Your task to perform on an android device: View the shopping cart on amazon.com. Add "razer blade" to the cart on amazon.com, then select checkout. Image 0: 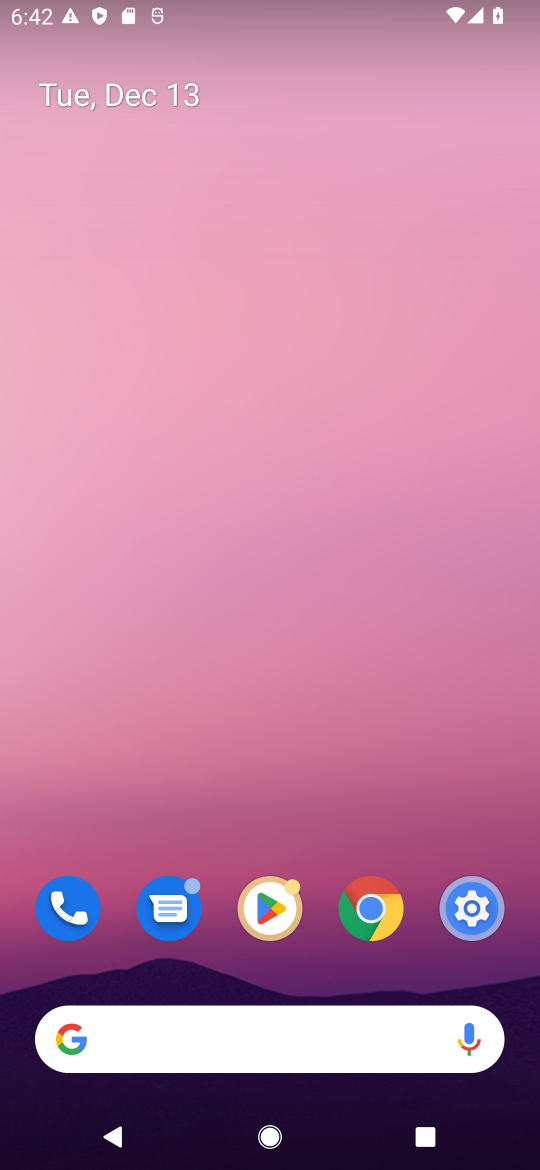
Step 0: press home button
Your task to perform on an android device: View the shopping cart on amazon.com. Add "razer blade" to the cart on amazon.com, then select checkout. Image 1: 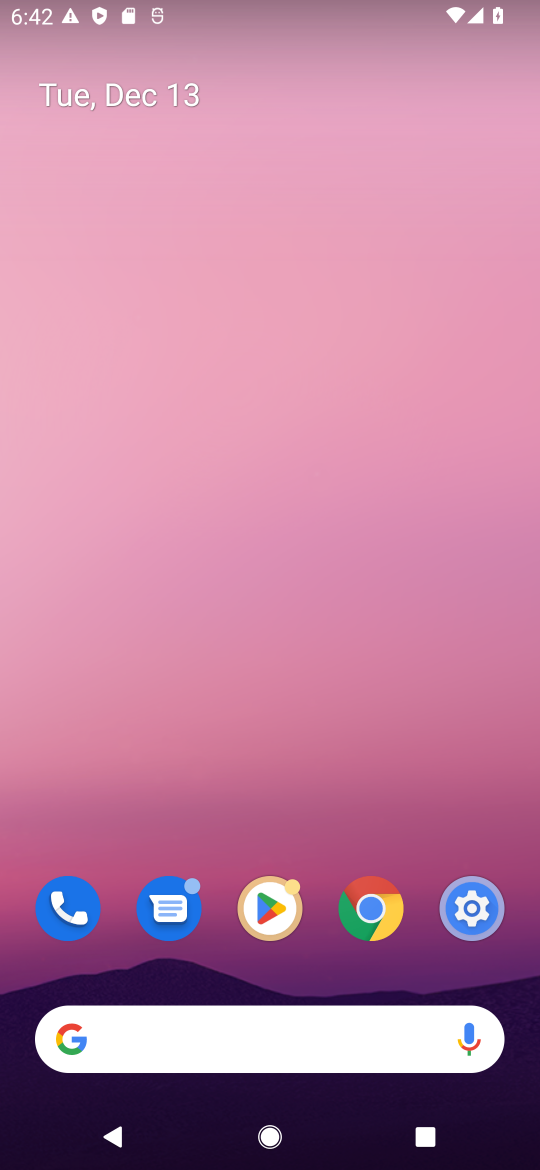
Step 1: click (124, 1052)
Your task to perform on an android device: View the shopping cart on amazon.com. Add "razer blade" to the cart on amazon.com, then select checkout. Image 2: 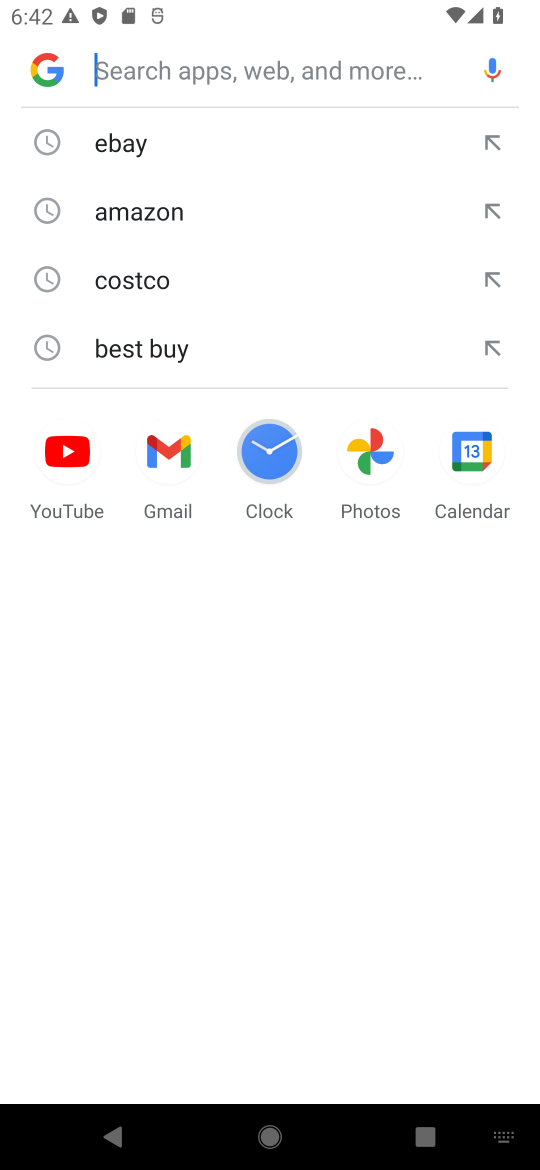
Step 2: press enter
Your task to perform on an android device: View the shopping cart on amazon.com. Add "razer blade" to the cart on amazon.com, then select checkout. Image 3: 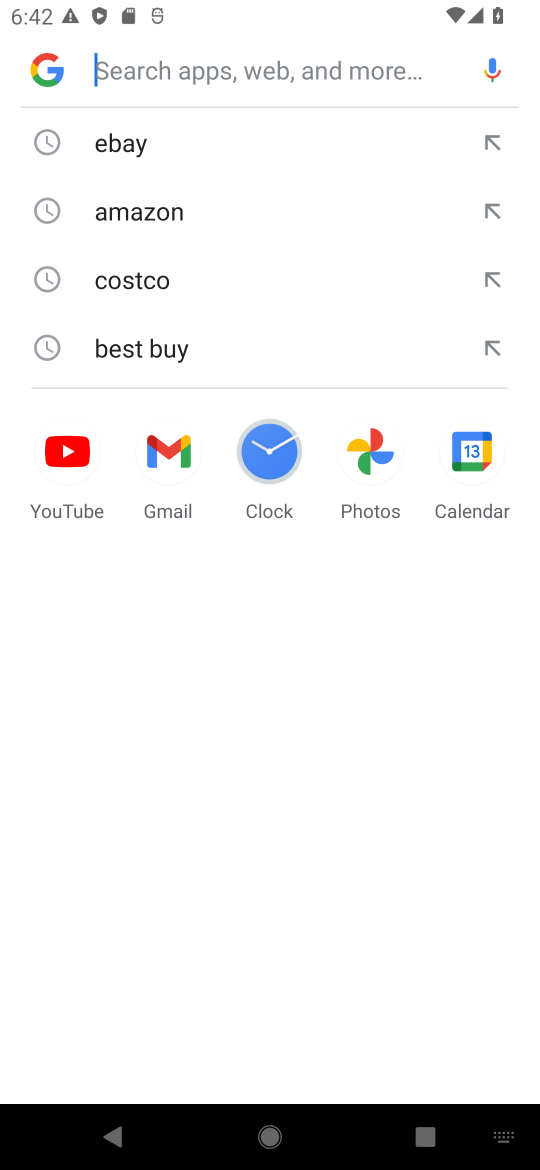
Step 3: type "amazon.com"
Your task to perform on an android device: View the shopping cart on amazon.com. Add "razer blade" to the cart on amazon.com, then select checkout. Image 4: 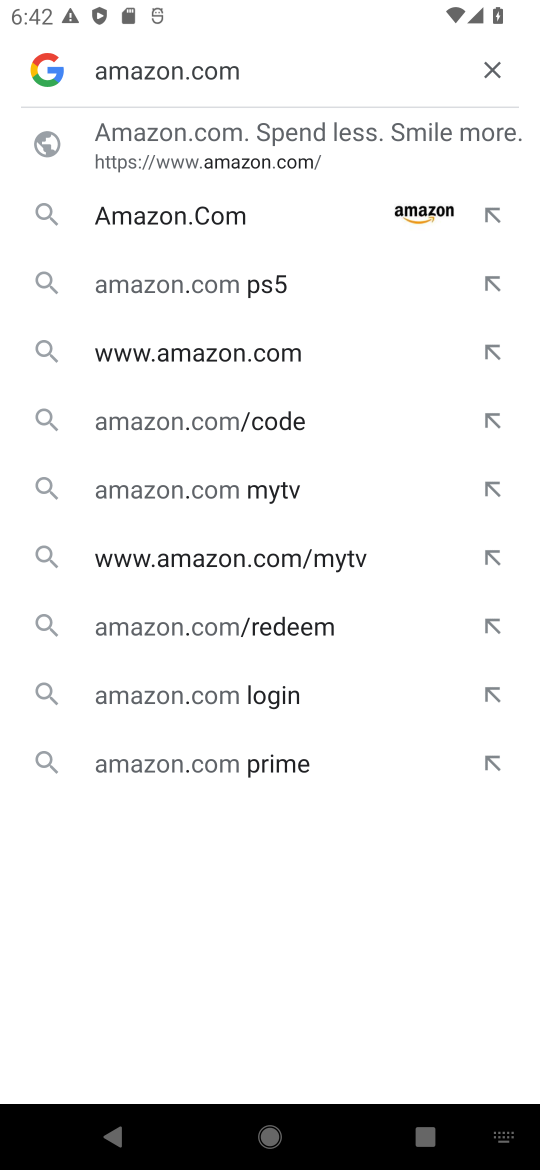
Step 4: press enter
Your task to perform on an android device: View the shopping cart on amazon.com. Add "razer blade" to the cart on amazon.com, then select checkout. Image 5: 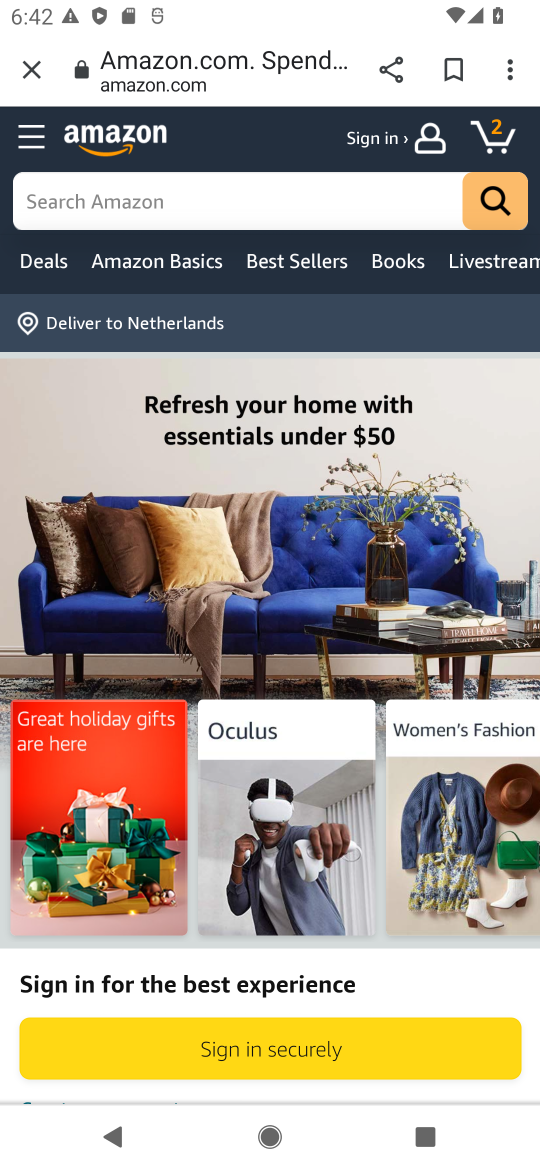
Step 5: click (498, 133)
Your task to perform on an android device: View the shopping cart on amazon.com. Add "razer blade" to the cart on amazon.com, then select checkout. Image 6: 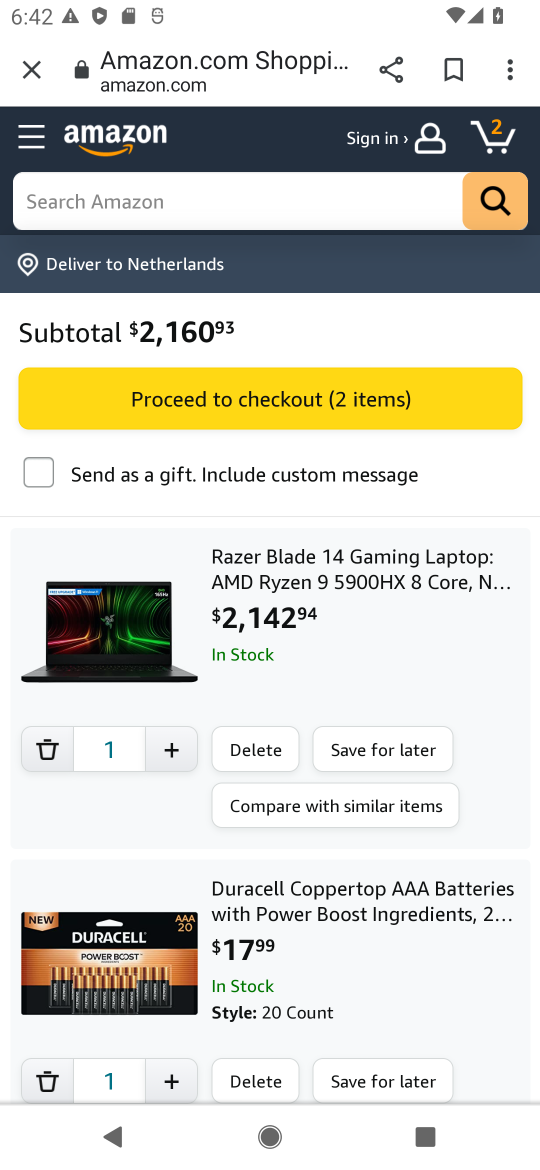
Step 6: click (148, 200)
Your task to perform on an android device: View the shopping cart on amazon.com. Add "razer blade" to the cart on amazon.com, then select checkout. Image 7: 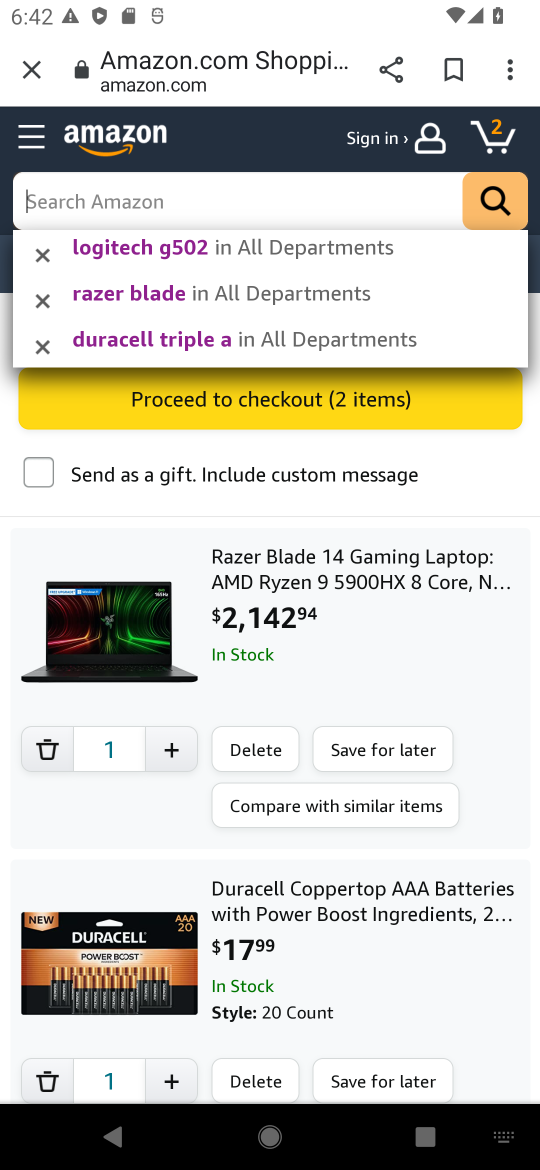
Step 7: type "razer blade"
Your task to perform on an android device: View the shopping cart on amazon.com. Add "razer blade" to the cart on amazon.com, then select checkout. Image 8: 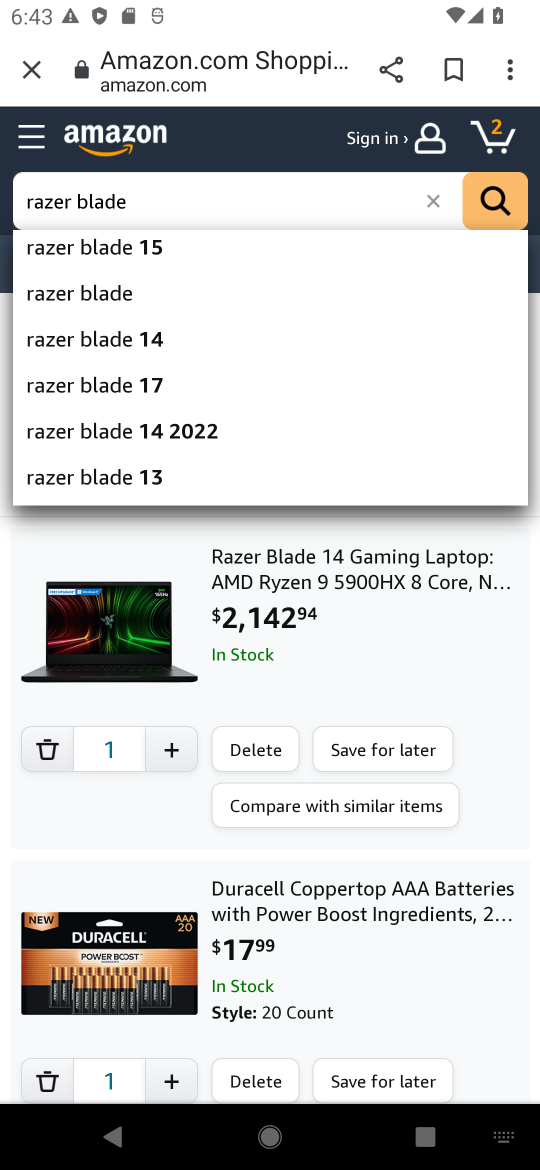
Step 8: click (488, 180)
Your task to perform on an android device: View the shopping cart on amazon.com. Add "razer blade" to the cart on amazon.com, then select checkout. Image 9: 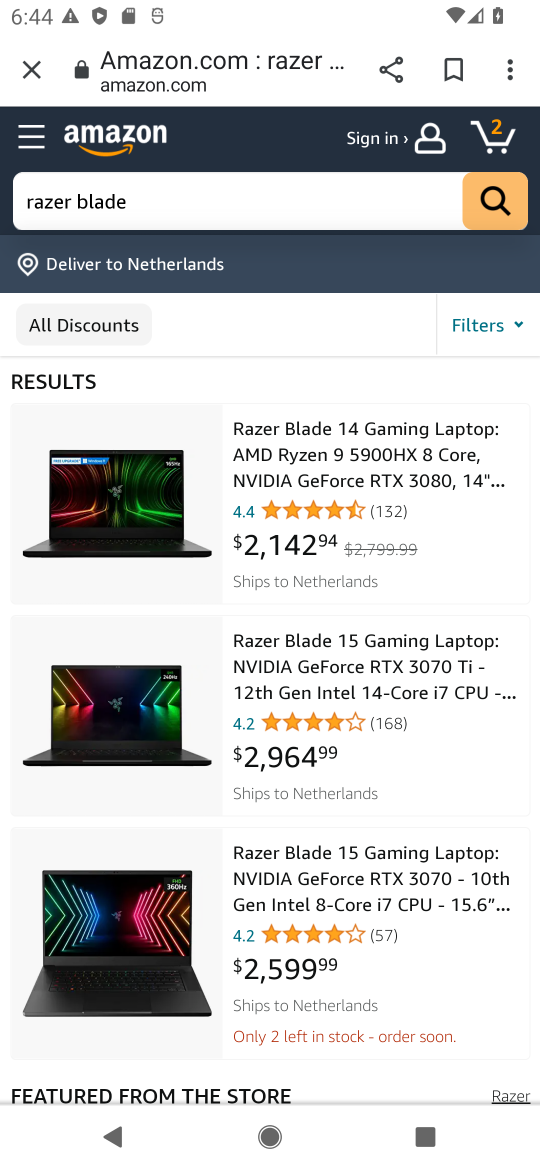
Step 9: click (336, 483)
Your task to perform on an android device: View the shopping cart on amazon.com. Add "razer blade" to the cart on amazon.com, then select checkout. Image 10: 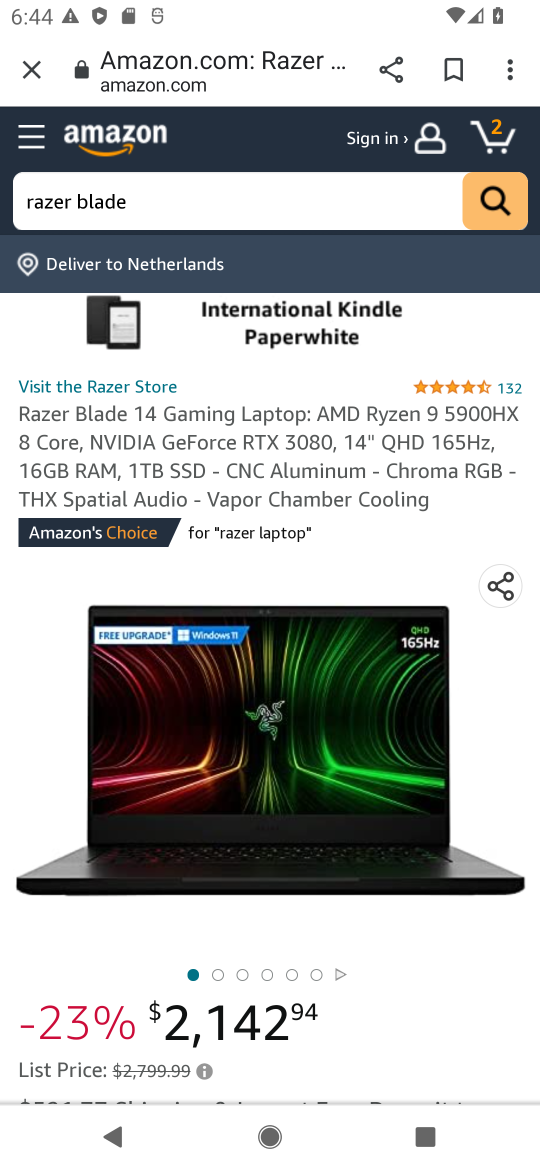
Step 10: drag from (257, 973) to (260, 425)
Your task to perform on an android device: View the shopping cart on amazon.com. Add "razer blade" to the cart on amazon.com, then select checkout. Image 11: 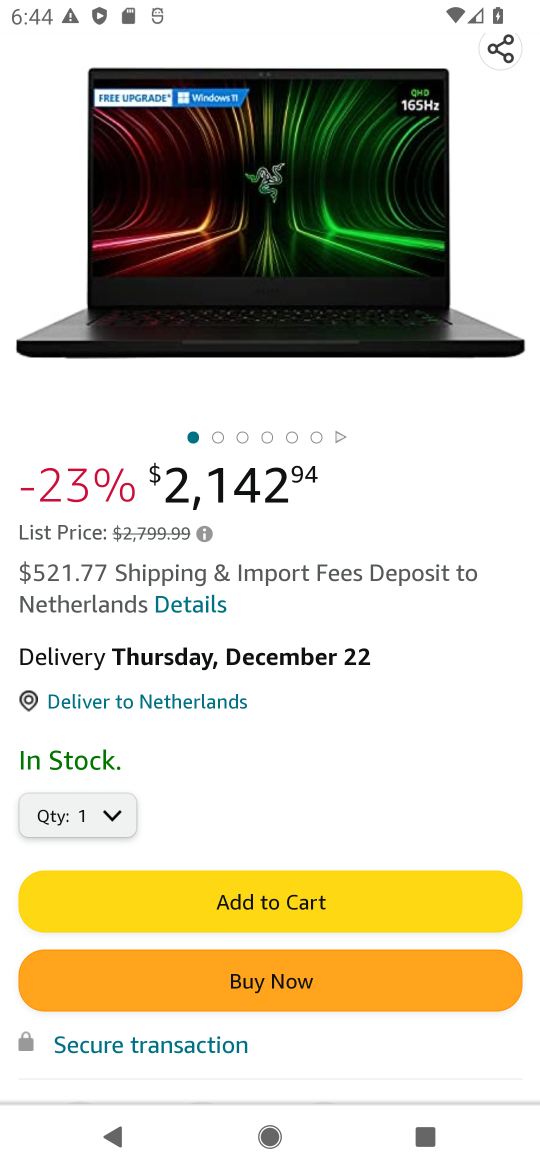
Step 11: click (279, 892)
Your task to perform on an android device: View the shopping cart on amazon.com. Add "razer blade" to the cart on amazon.com, then select checkout. Image 12: 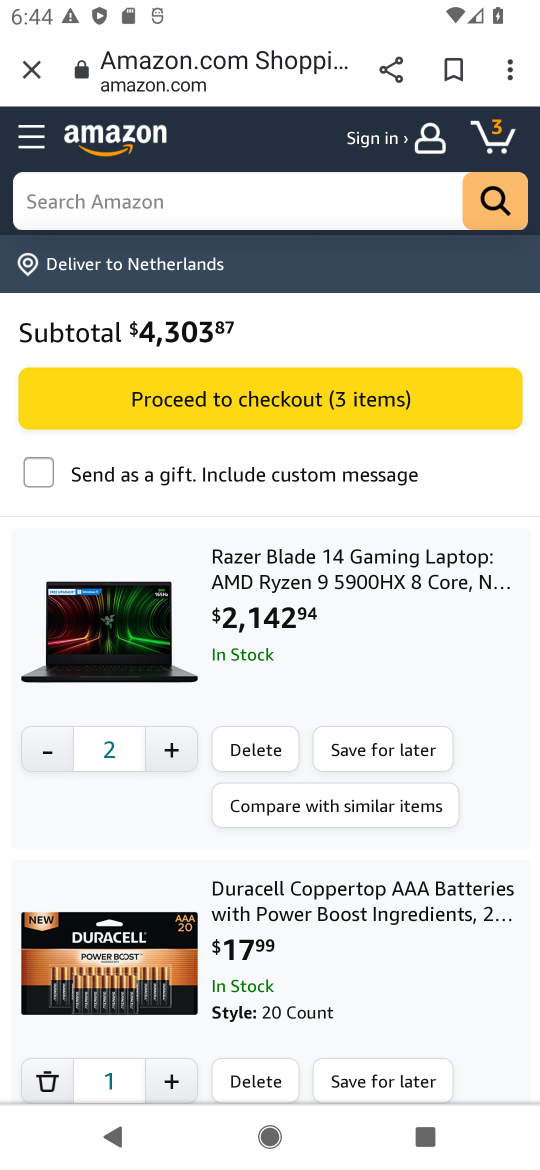
Step 12: click (403, 391)
Your task to perform on an android device: View the shopping cart on amazon.com. Add "razer blade" to the cart on amazon.com, then select checkout. Image 13: 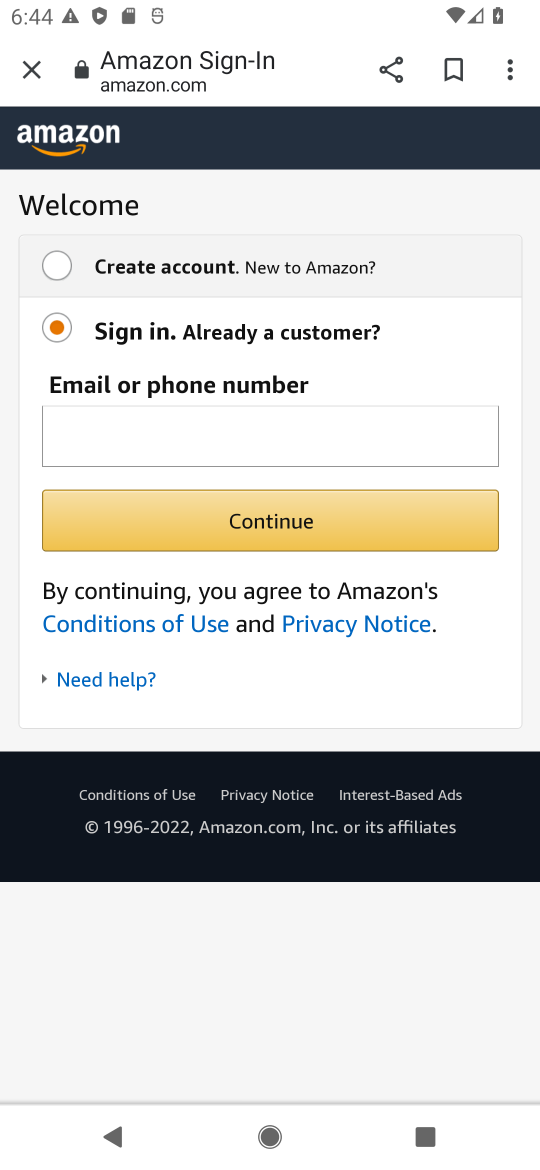
Step 13: task complete